Your task to perform on an android device: turn off improve location accuracy Image 0: 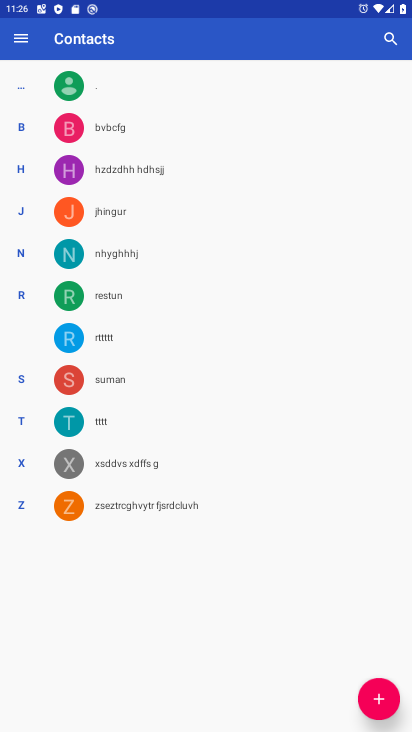
Step 0: press home button
Your task to perform on an android device: turn off improve location accuracy Image 1: 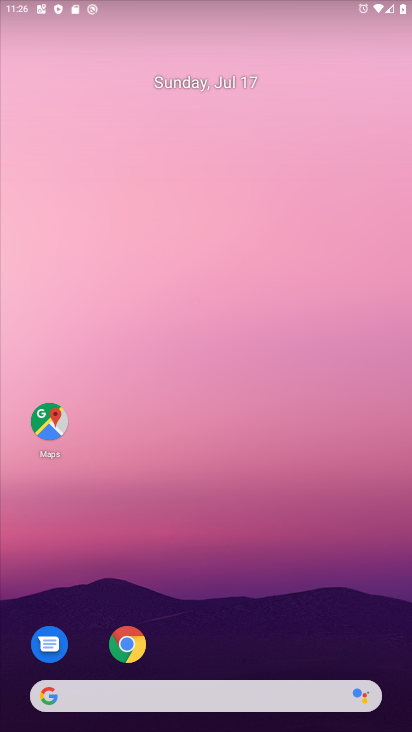
Step 1: drag from (320, 547) to (309, 100)
Your task to perform on an android device: turn off improve location accuracy Image 2: 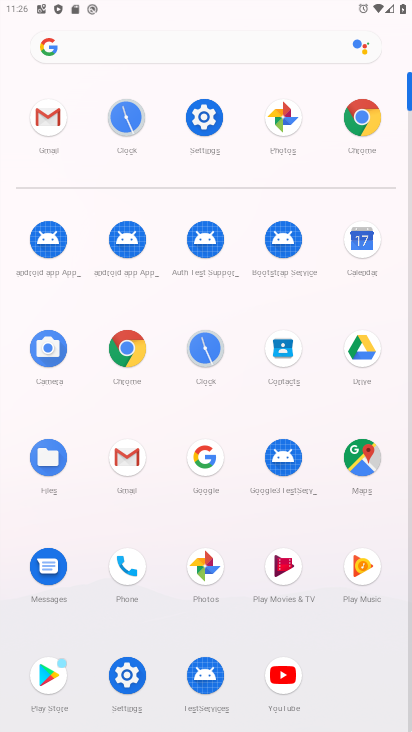
Step 2: click (195, 122)
Your task to perform on an android device: turn off improve location accuracy Image 3: 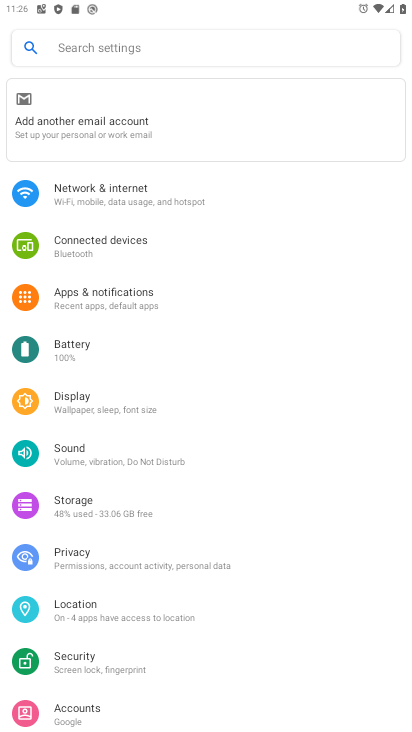
Step 3: click (148, 616)
Your task to perform on an android device: turn off improve location accuracy Image 4: 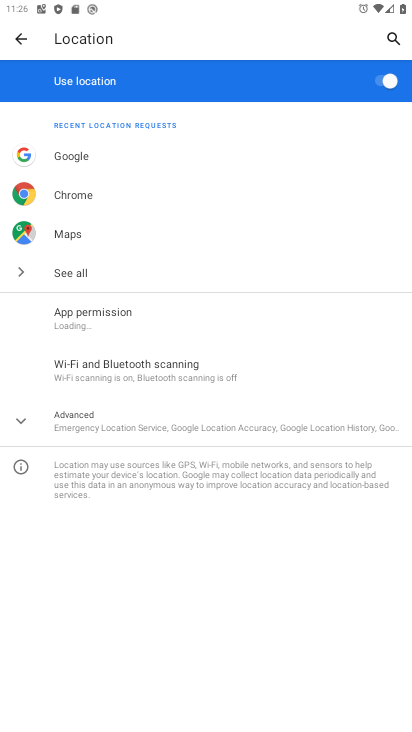
Step 4: click (154, 425)
Your task to perform on an android device: turn off improve location accuracy Image 5: 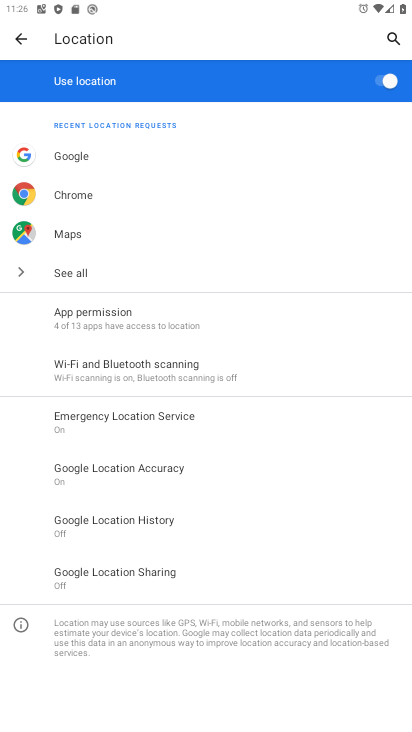
Step 5: click (177, 474)
Your task to perform on an android device: turn off improve location accuracy Image 6: 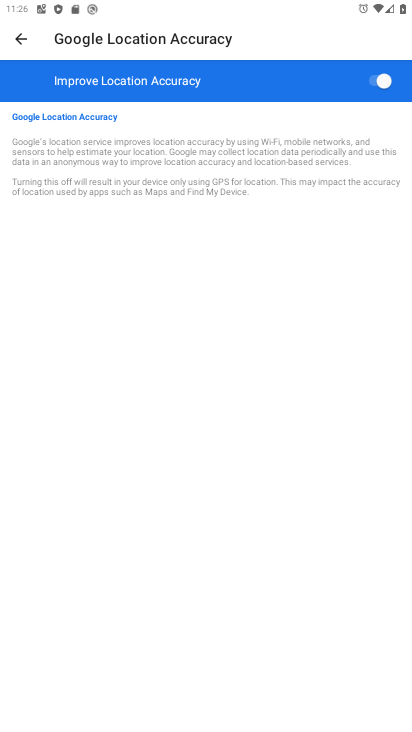
Step 6: click (375, 89)
Your task to perform on an android device: turn off improve location accuracy Image 7: 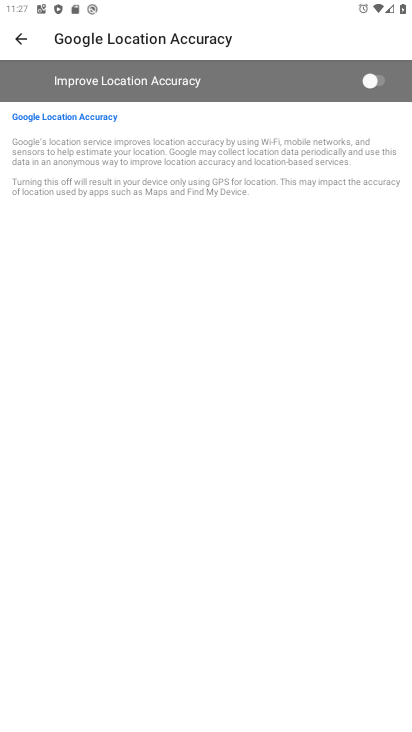
Step 7: task complete